Your task to perform on an android device: Check the news Image 0: 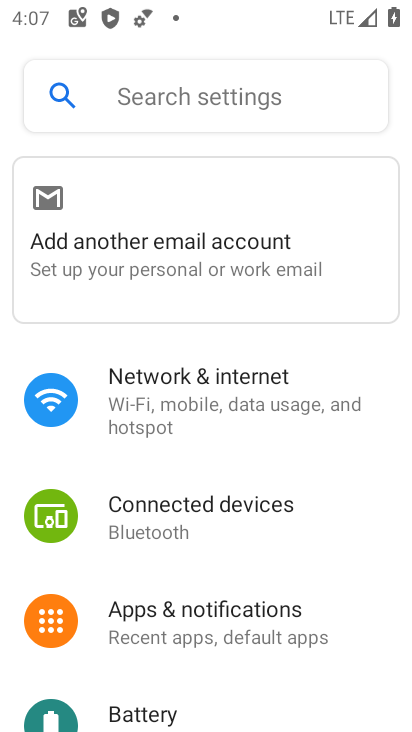
Step 0: press home button
Your task to perform on an android device: Check the news Image 1: 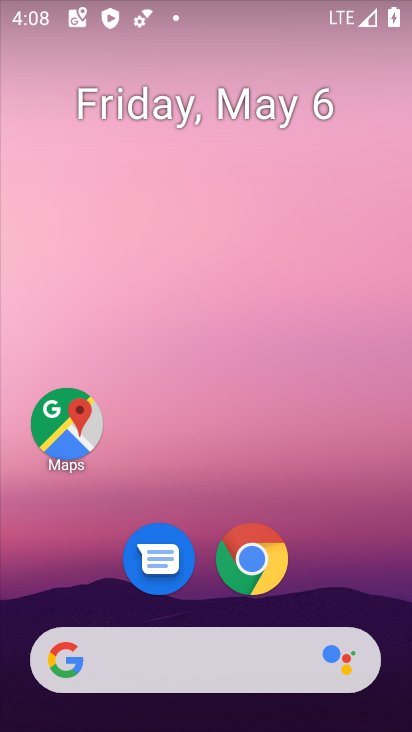
Step 1: drag from (193, 626) to (174, 143)
Your task to perform on an android device: Check the news Image 2: 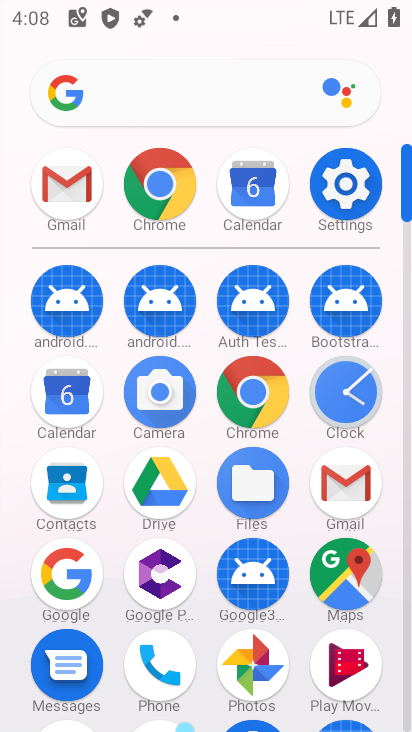
Step 2: click (84, 590)
Your task to perform on an android device: Check the news Image 3: 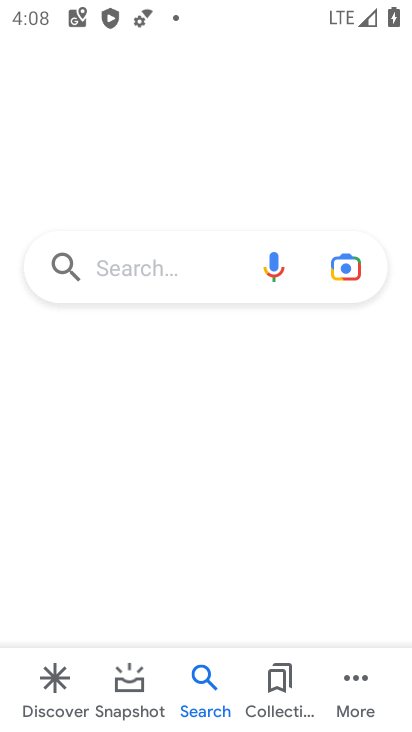
Step 3: click (115, 265)
Your task to perform on an android device: Check the news Image 4: 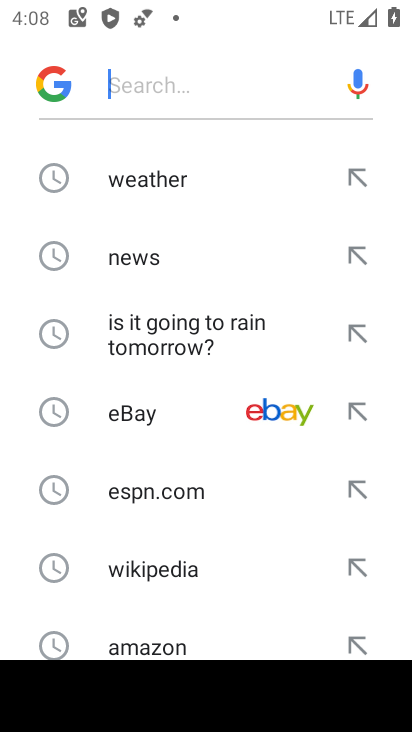
Step 4: click (120, 258)
Your task to perform on an android device: Check the news Image 5: 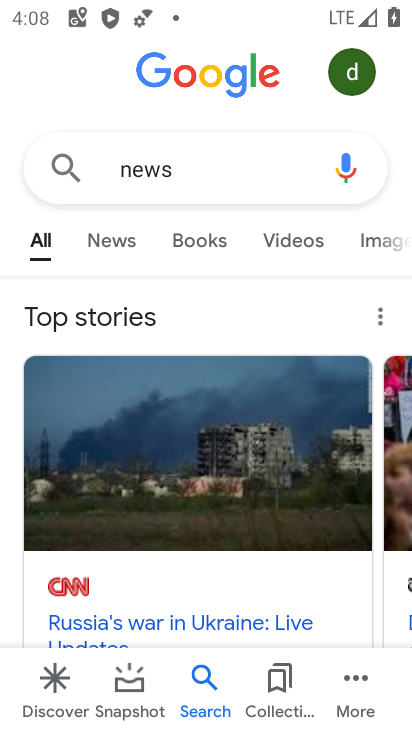
Step 5: task complete